Your task to perform on an android device: find snoozed emails in the gmail app Image 0: 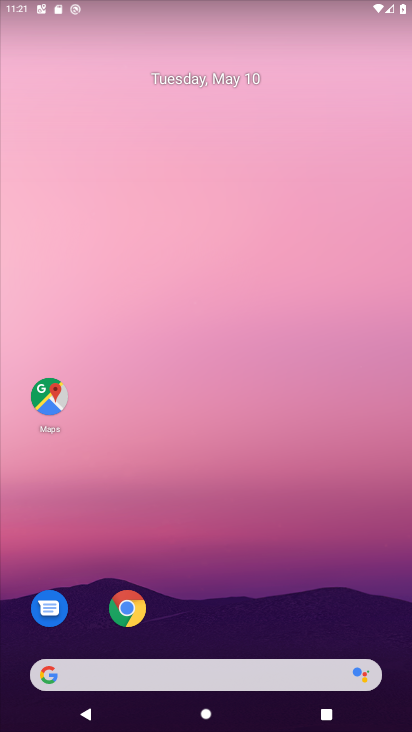
Step 0: drag from (217, 667) to (193, 46)
Your task to perform on an android device: find snoozed emails in the gmail app Image 1: 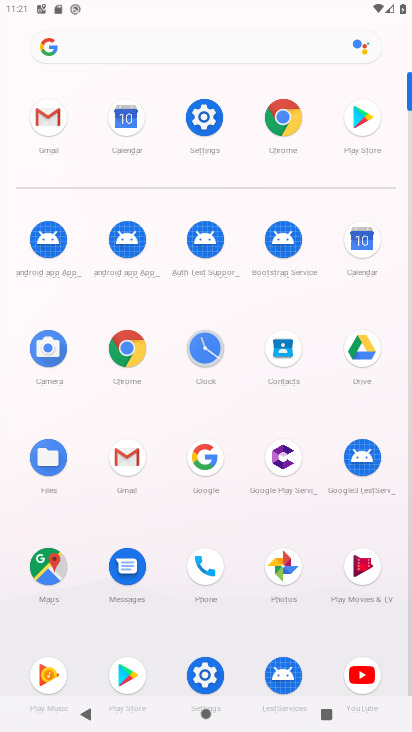
Step 1: click (129, 466)
Your task to perform on an android device: find snoozed emails in the gmail app Image 2: 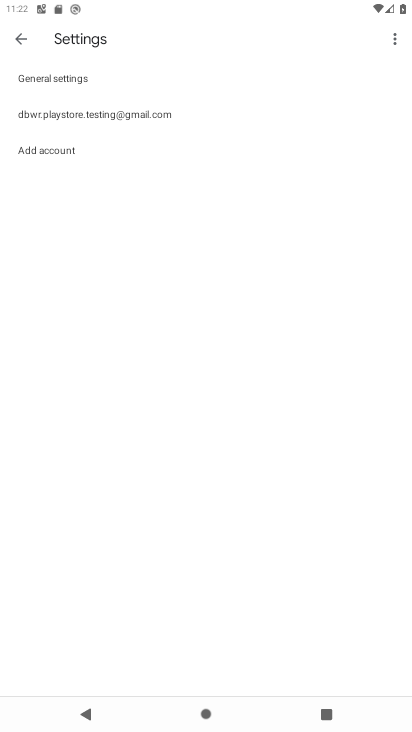
Step 2: click (13, 39)
Your task to perform on an android device: find snoozed emails in the gmail app Image 3: 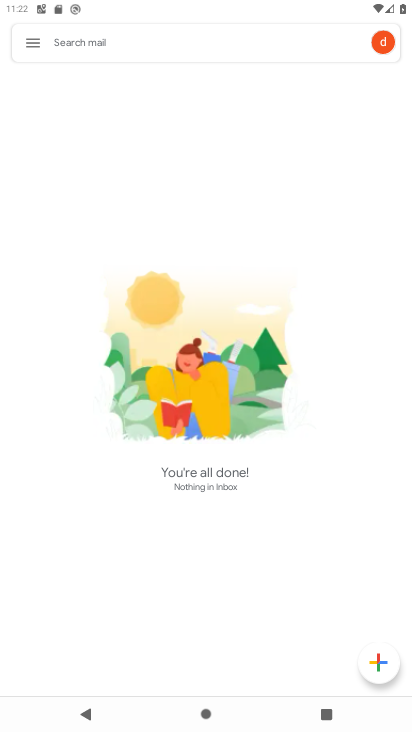
Step 3: click (31, 45)
Your task to perform on an android device: find snoozed emails in the gmail app Image 4: 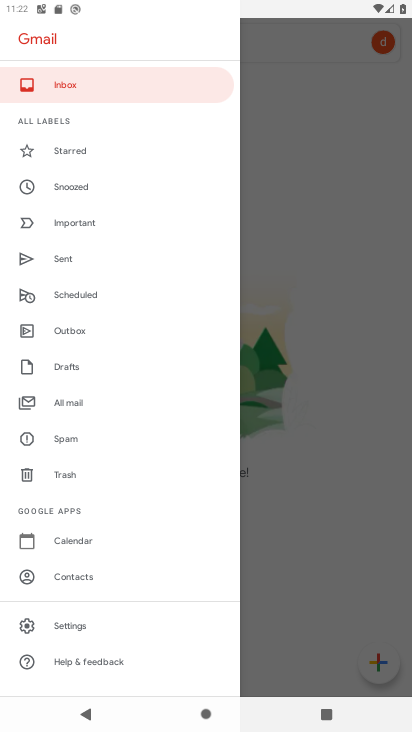
Step 4: click (75, 186)
Your task to perform on an android device: find snoozed emails in the gmail app Image 5: 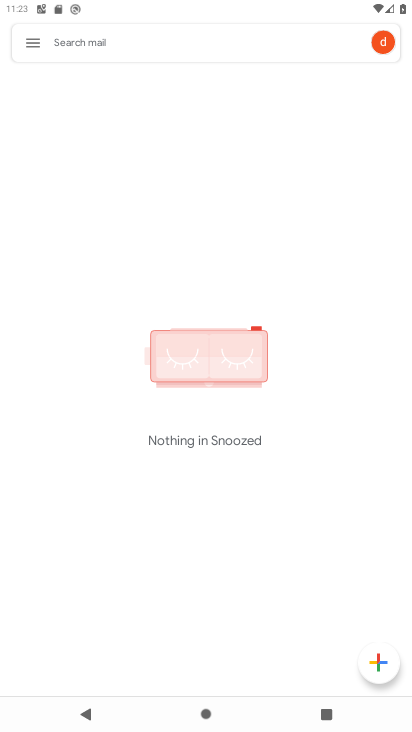
Step 5: task complete